Your task to perform on an android device: open app "eBay: The shopping marketplace" (install if not already installed) Image 0: 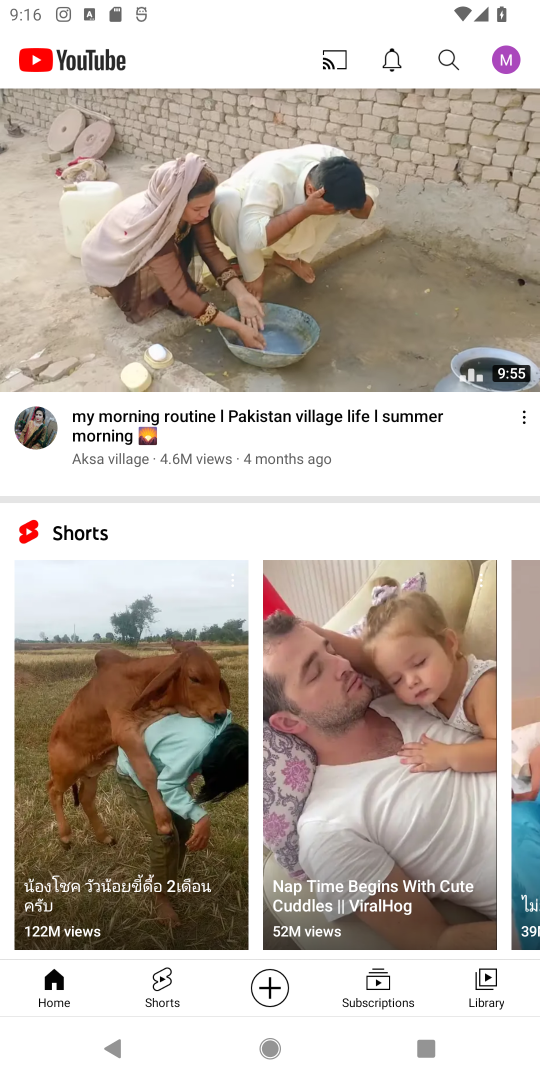
Step 0: press home button
Your task to perform on an android device: open app "eBay: The shopping marketplace" (install if not already installed) Image 1: 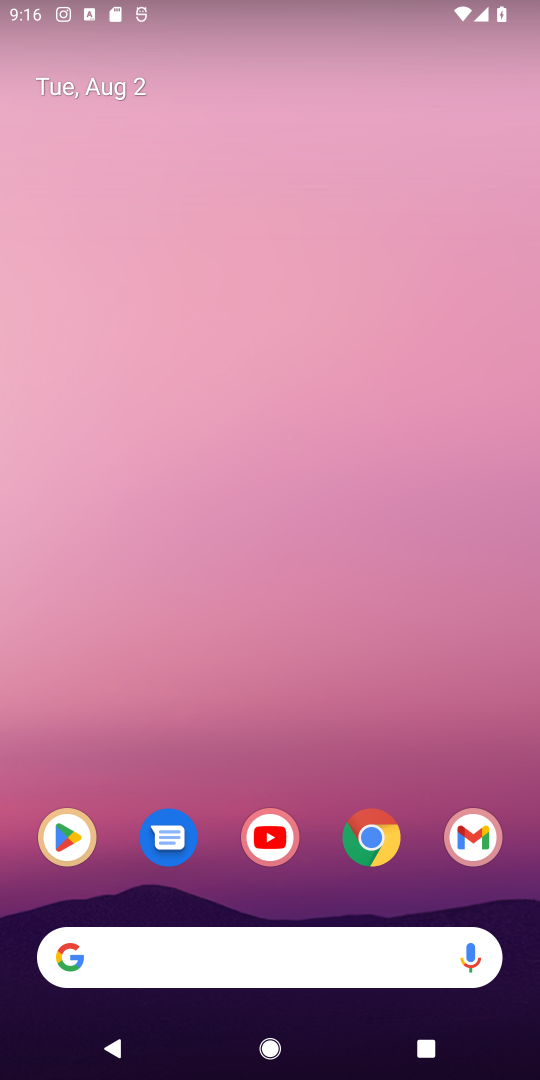
Step 1: click (69, 826)
Your task to perform on an android device: open app "eBay: The shopping marketplace" (install if not already installed) Image 2: 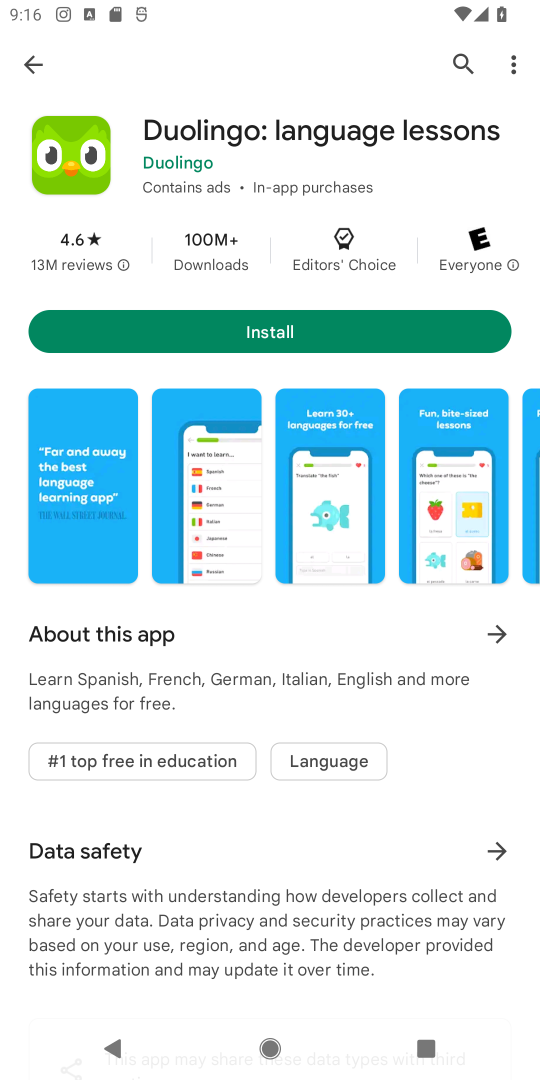
Step 2: click (65, 837)
Your task to perform on an android device: open app "eBay: The shopping marketplace" (install if not already installed) Image 3: 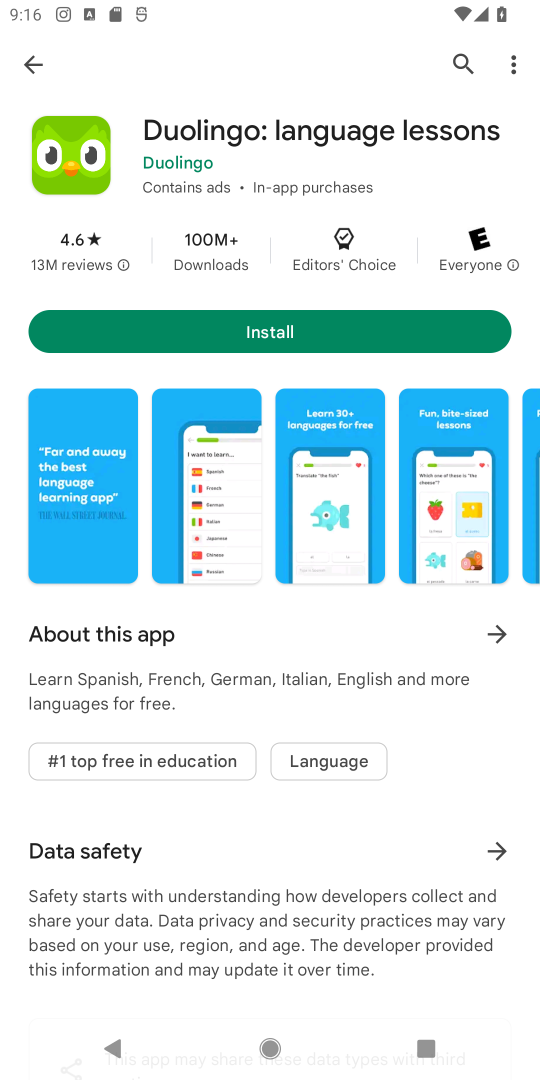
Step 3: click (468, 67)
Your task to perform on an android device: open app "eBay: The shopping marketplace" (install if not already installed) Image 4: 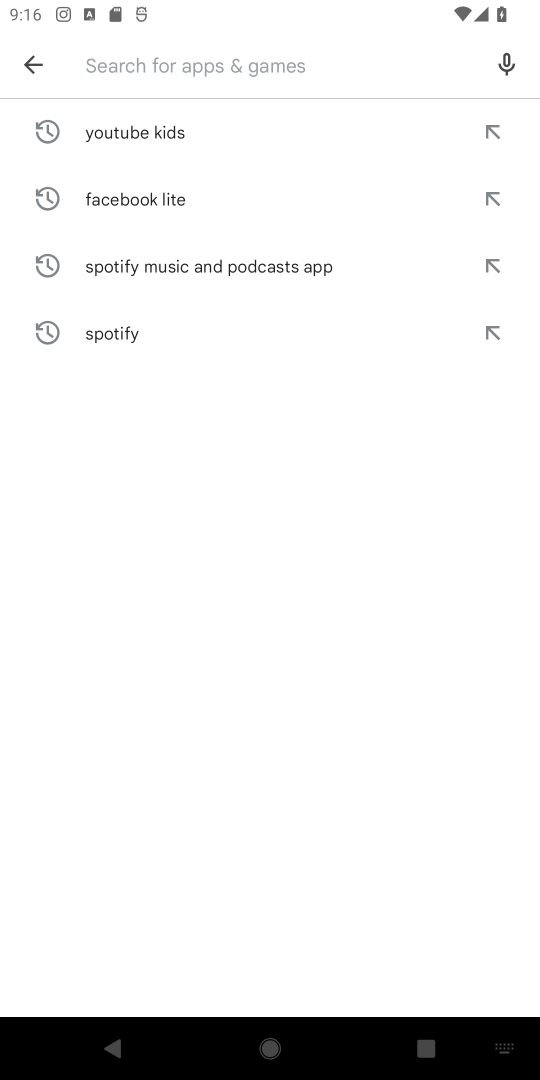
Step 4: type "eBay: The shopping marketplace"
Your task to perform on an android device: open app "eBay: The shopping marketplace" (install if not already installed) Image 5: 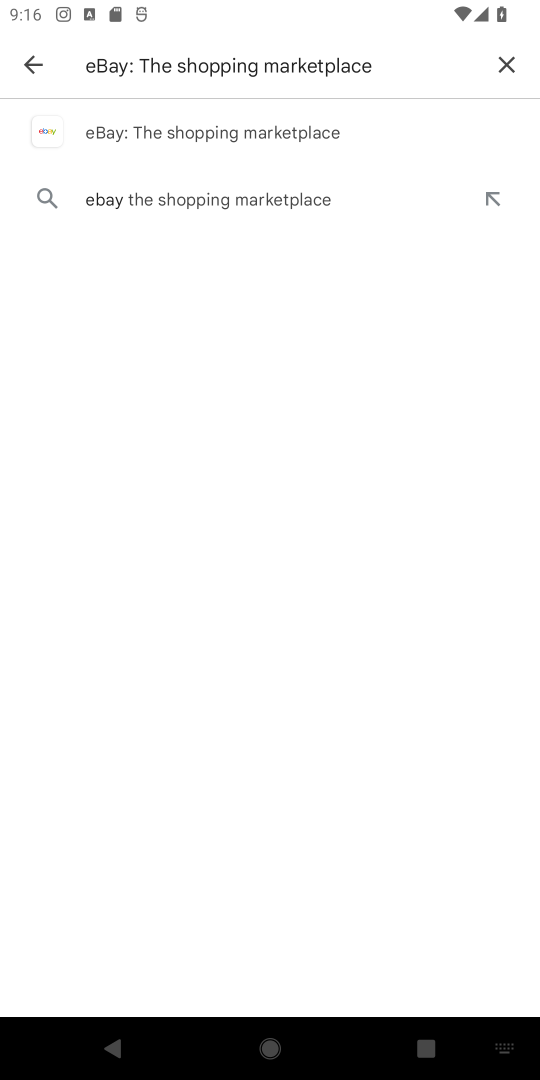
Step 5: click (158, 143)
Your task to perform on an android device: open app "eBay: The shopping marketplace" (install if not already installed) Image 6: 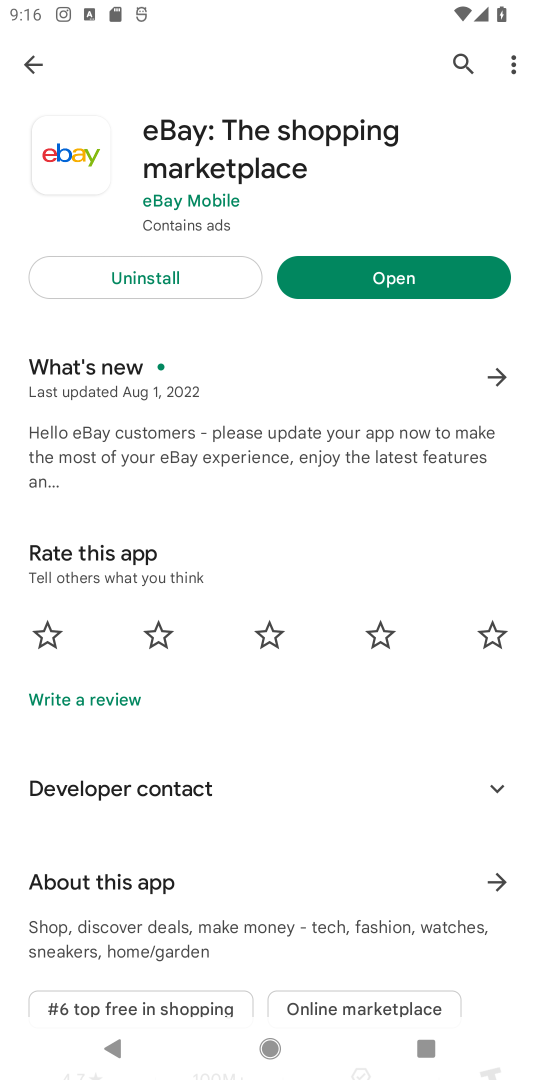
Step 6: click (417, 270)
Your task to perform on an android device: open app "eBay: The shopping marketplace" (install if not already installed) Image 7: 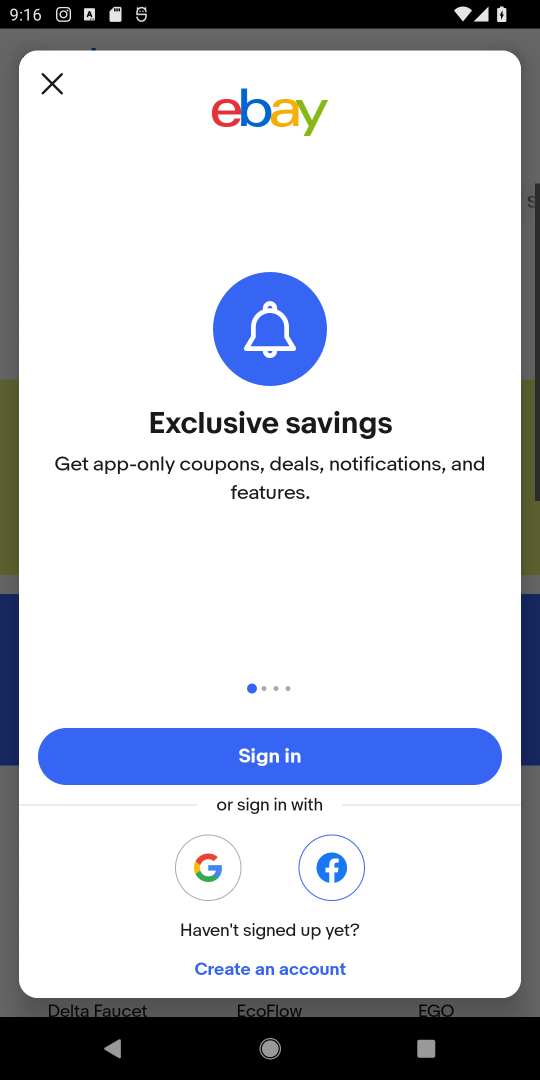
Step 7: task complete